Your task to perform on an android device: Check the weather Image 0: 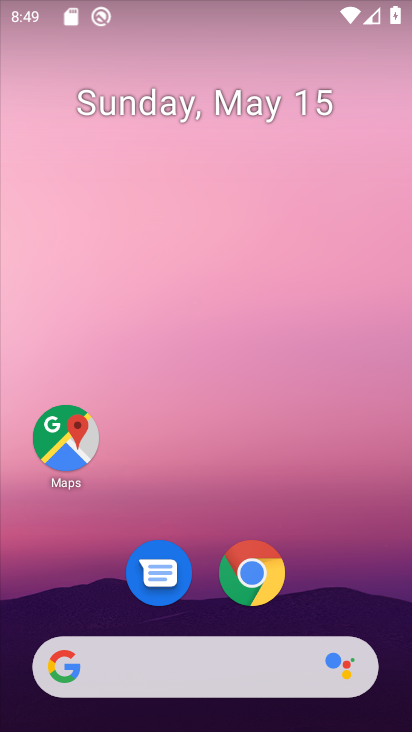
Step 0: drag from (92, 633) to (203, 159)
Your task to perform on an android device: Check the weather Image 1: 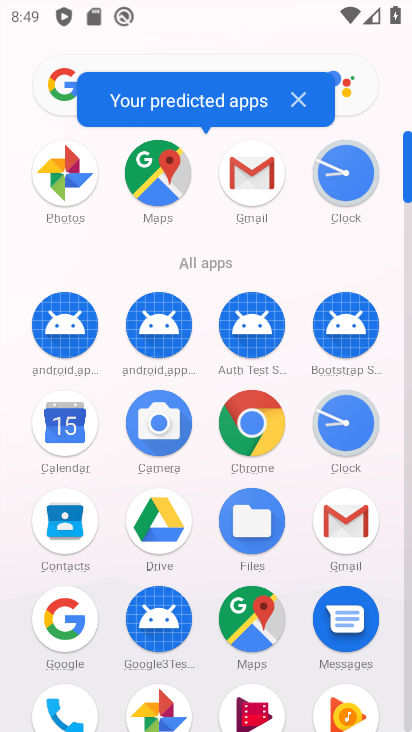
Step 1: drag from (173, 623) to (232, 412)
Your task to perform on an android device: Check the weather Image 2: 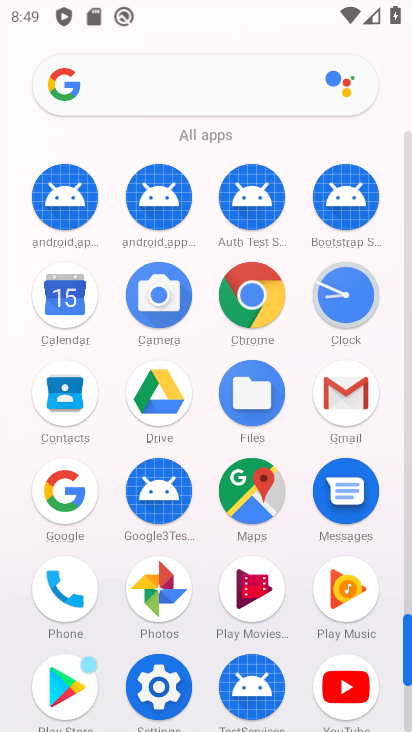
Step 2: click (50, 501)
Your task to perform on an android device: Check the weather Image 3: 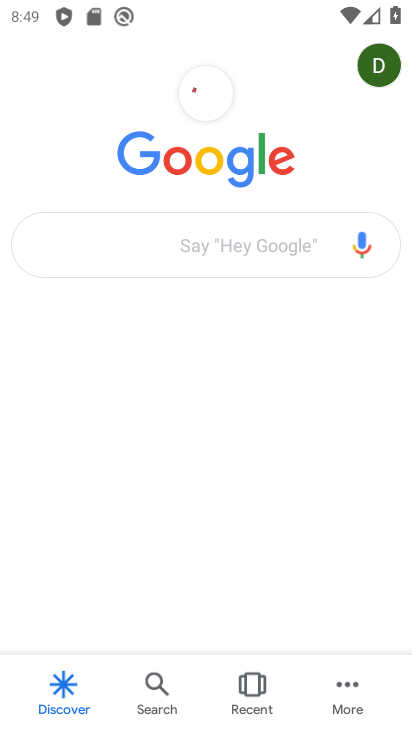
Step 3: click (173, 250)
Your task to perform on an android device: Check the weather Image 4: 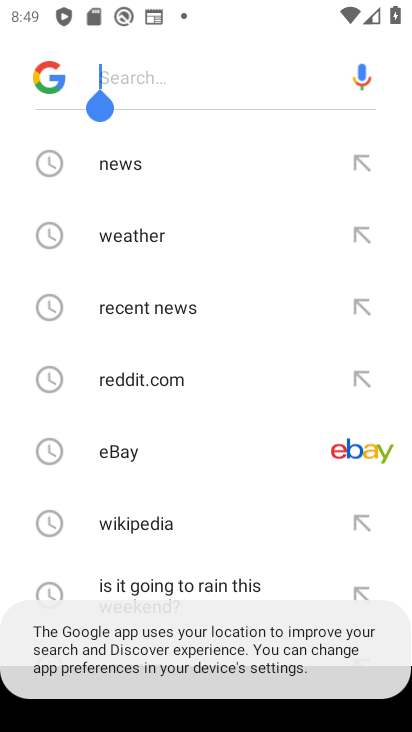
Step 4: click (172, 238)
Your task to perform on an android device: Check the weather Image 5: 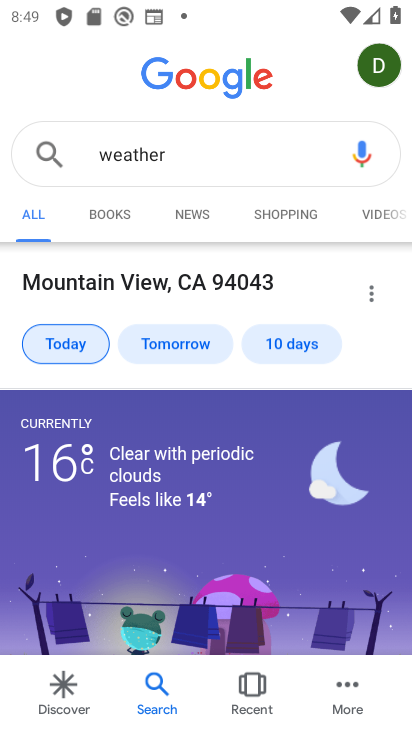
Step 5: click (199, 452)
Your task to perform on an android device: Check the weather Image 6: 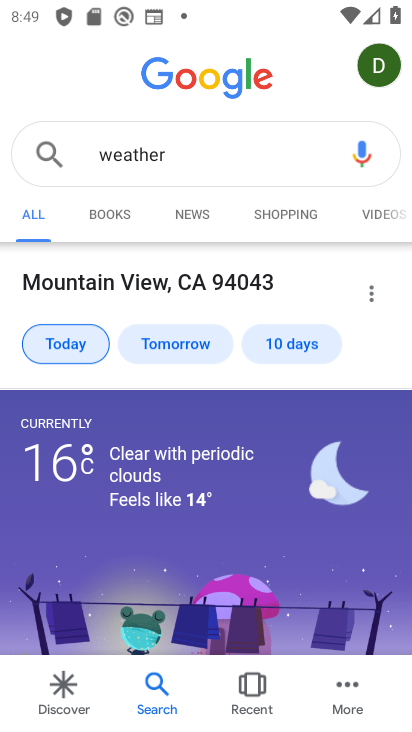
Step 6: drag from (197, 530) to (265, 291)
Your task to perform on an android device: Check the weather Image 7: 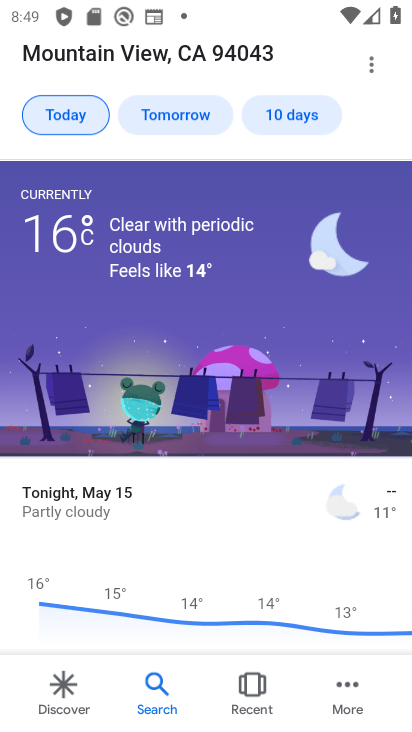
Step 7: click (246, 349)
Your task to perform on an android device: Check the weather Image 8: 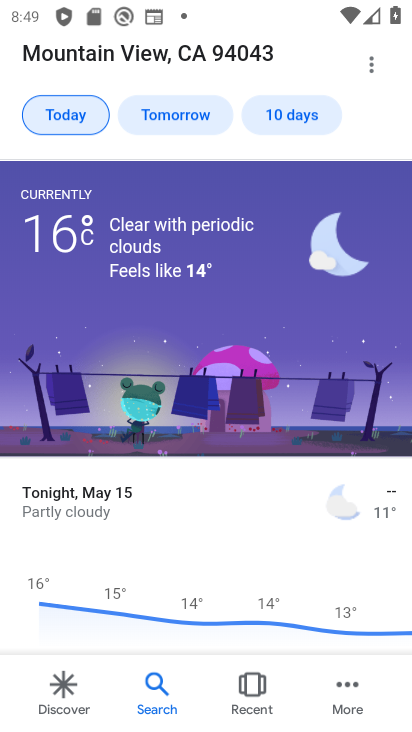
Step 8: click (242, 355)
Your task to perform on an android device: Check the weather Image 9: 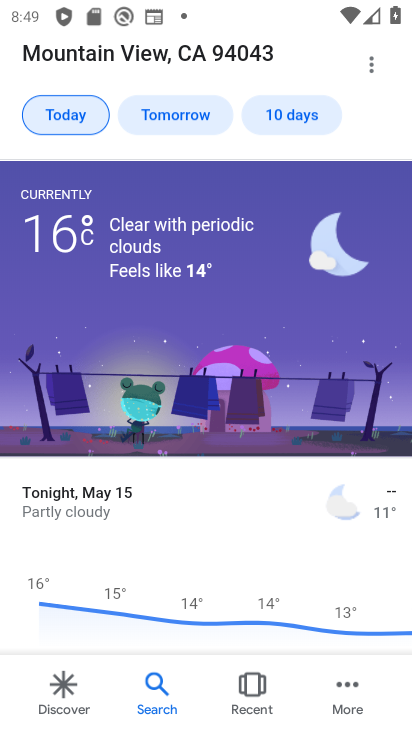
Step 9: drag from (199, 584) to (284, 228)
Your task to perform on an android device: Check the weather Image 10: 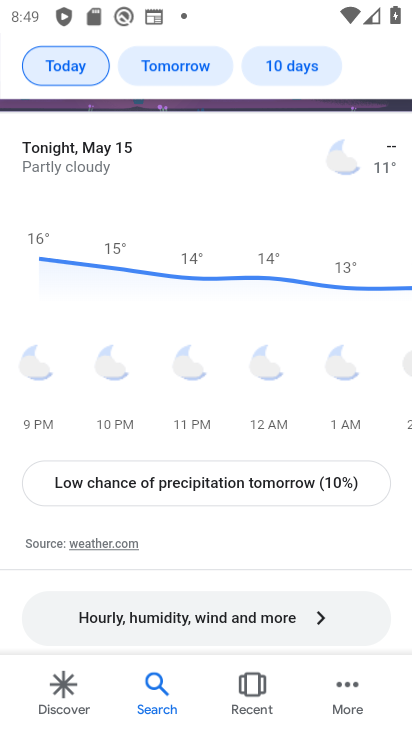
Step 10: drag from (220, 547) to (357, 131)
Your task to perform on an android device: Check the weather Image 11: 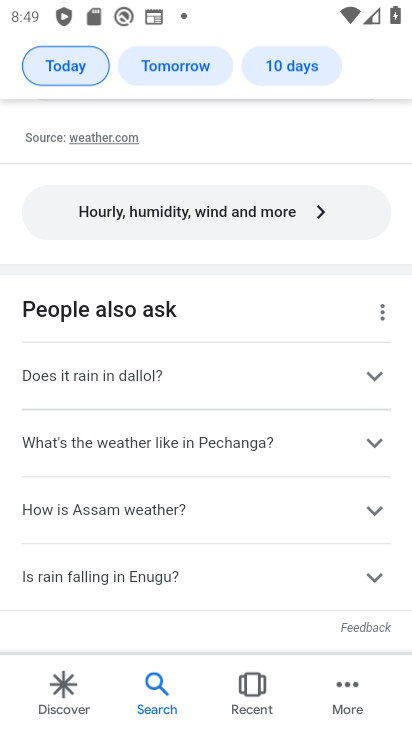
Step 11: drag from (233, 547) to (367, 100)
Your task to perform on an android device: Check the weather Image 12: 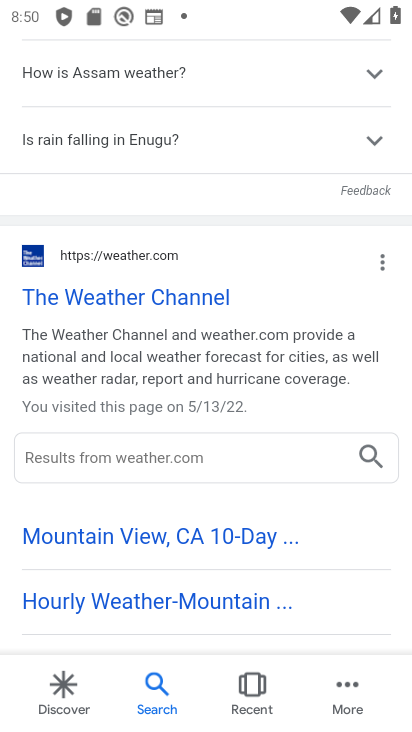
Step 12: click (182, 284)
Your task to perform on an android device: Check the weather Image 13: 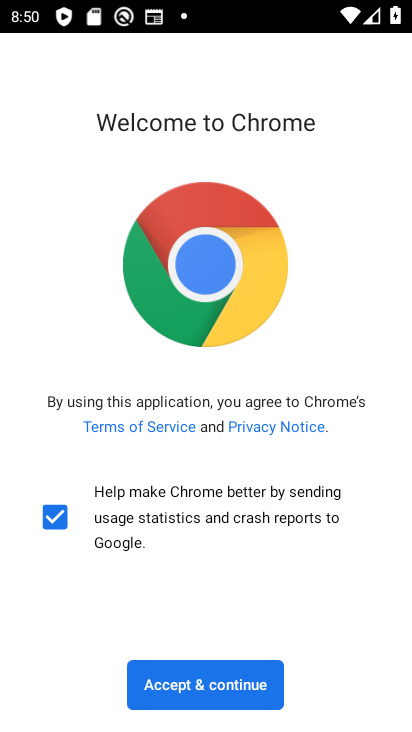
Step 13: click (205, 685)
Your task to perform on an android device: Check the weather Image 14: 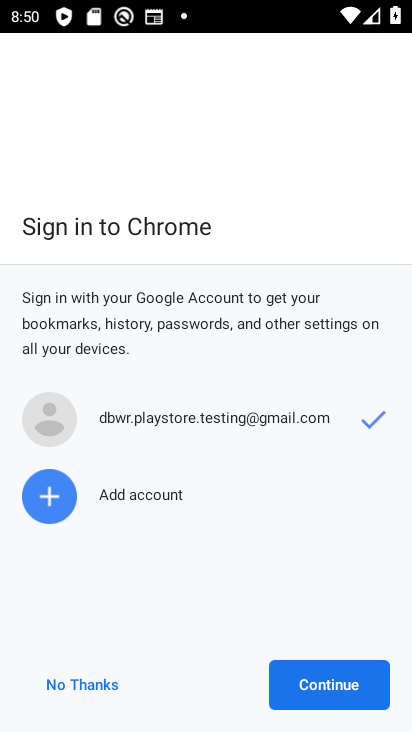
Step 14: click (324, 680)
Your task to perform on an android device: Check the weather Image 15: 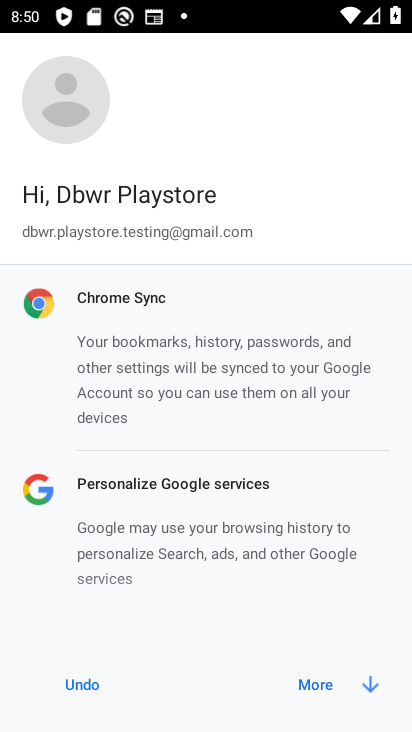
Step 15: click (329, 690)
Your task to perform on an android device: Check the weather Image 16: 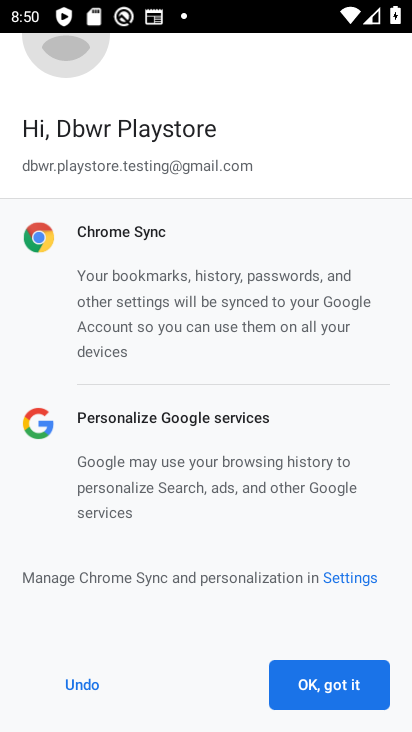
Step 16: click (324, 690)
Your task to perform on an android device: Check the weather Image 17: 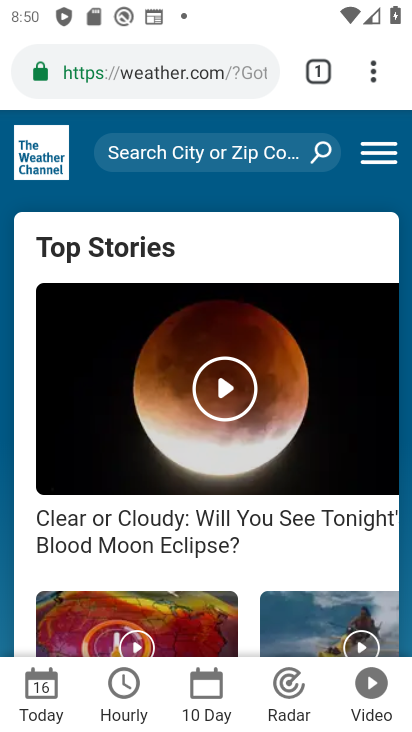
Step 17: drag from (130, 631) to (190, 345)
Your task to perform on an android device: Check the weather Image 18: 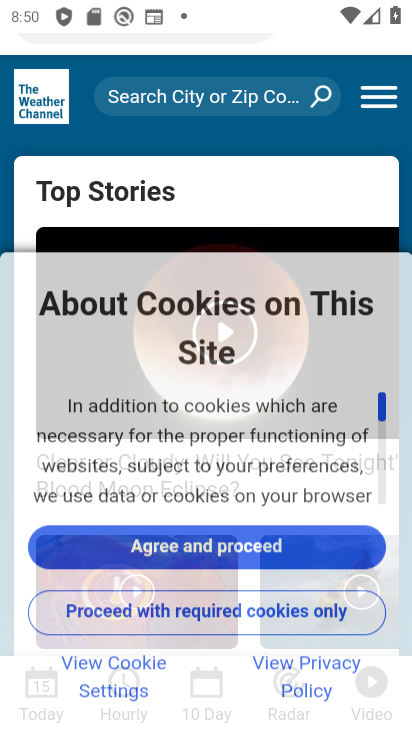
Step 18: click (212, 542)
Your task to perform on an android device: Check the weather Image 19: 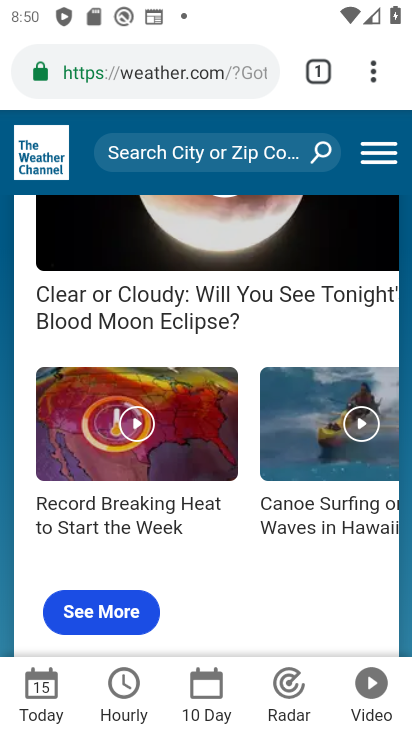
Step 19: click (43, 715)
Your task to perform on an android device: Check the weather Image 20: 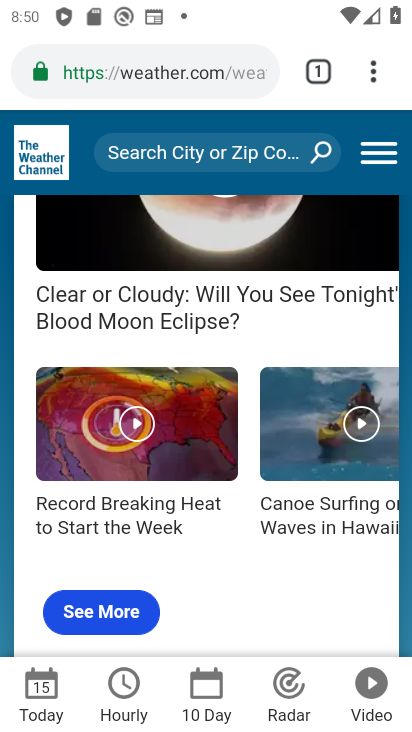
Step 20: drag from (147, 604) to (248, 296)
Your task to perform on an android device: Check the weather Image 21: 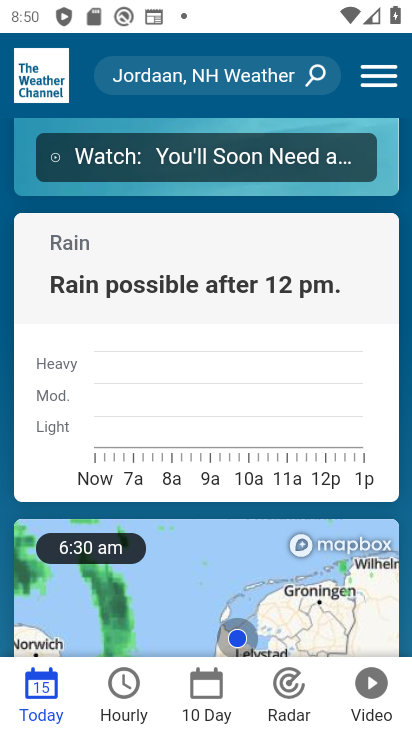
Step 21: click (44, 698)
Your task to perform on an android device: Check the weather Image 22: 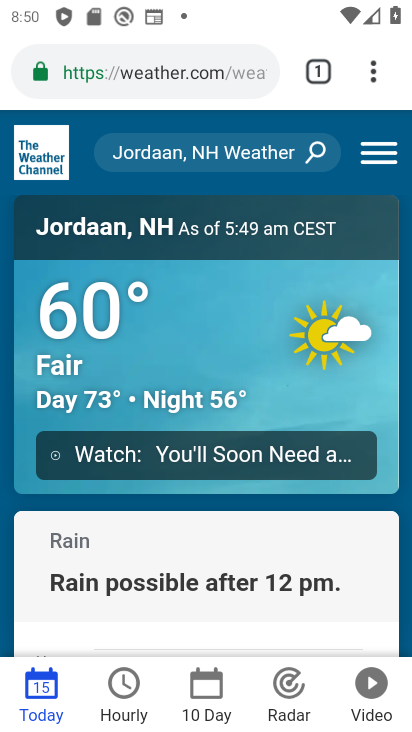
Step 22: task complete